Your task to perform on an android device: turn on bluetooth scan Image 0: 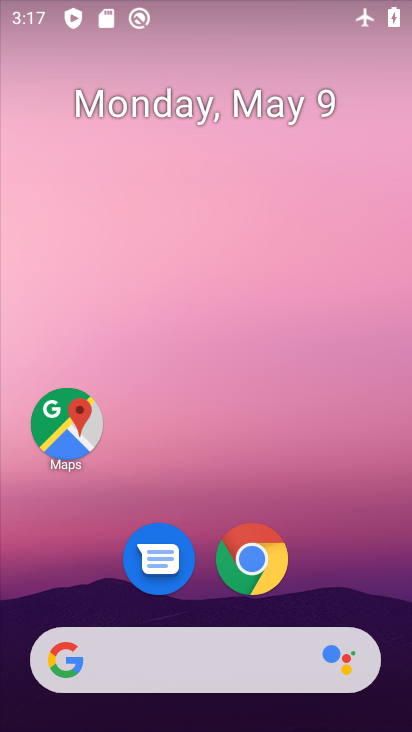
Step 0: drag from (178, 720) to (182, 398)
Your task to perform on an android device: turn on bluetooth scan Image 1: 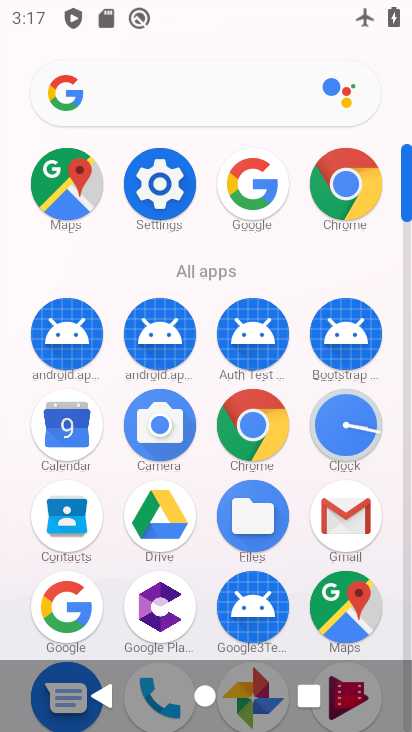
Step 1: click (157, 172)
Your task to perform on an android device: turn on bluetooth scan Image 2: 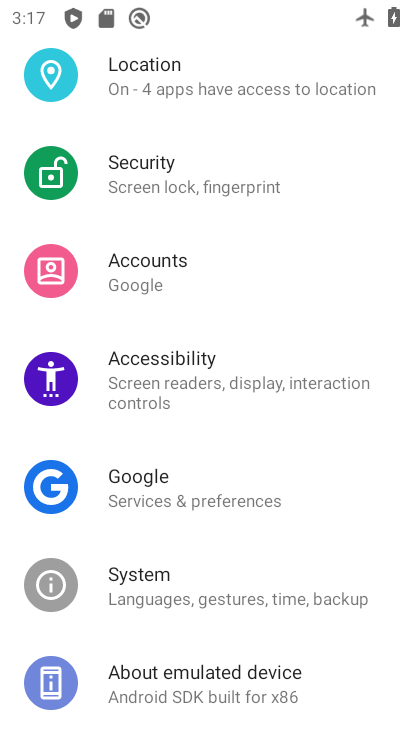
Step 2: click (166, 87)
Your task to perform on an android device: turn on bluetooth scan Image 3: 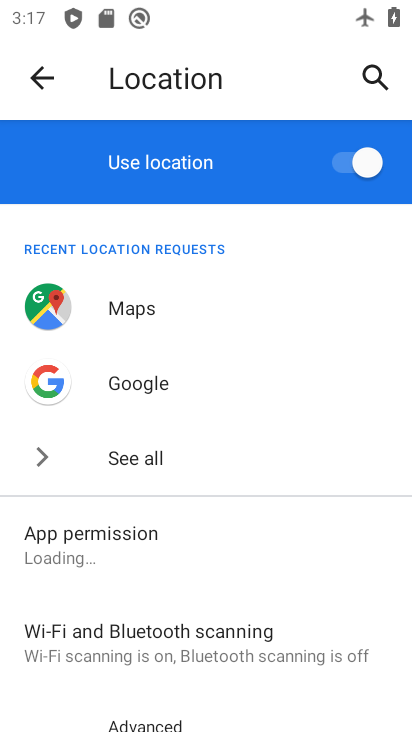
Step 3: click (166, 638)
Your task to perform on an android device: turn on bluetooth scan Image 4: 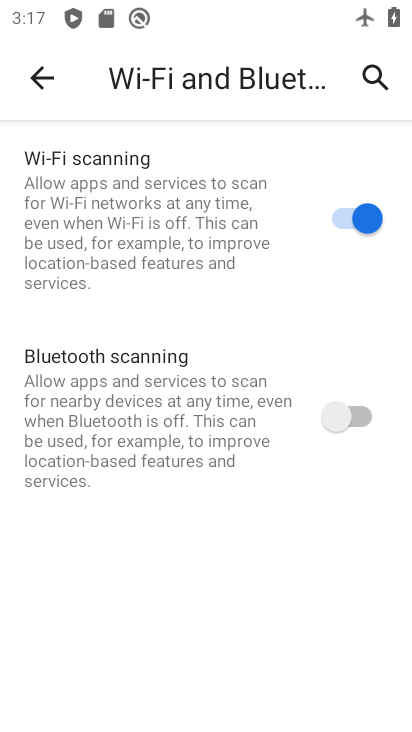
Step 4: click (361, 413)
Your task to perform on an android device: turn on bluetooth scan Image 5: 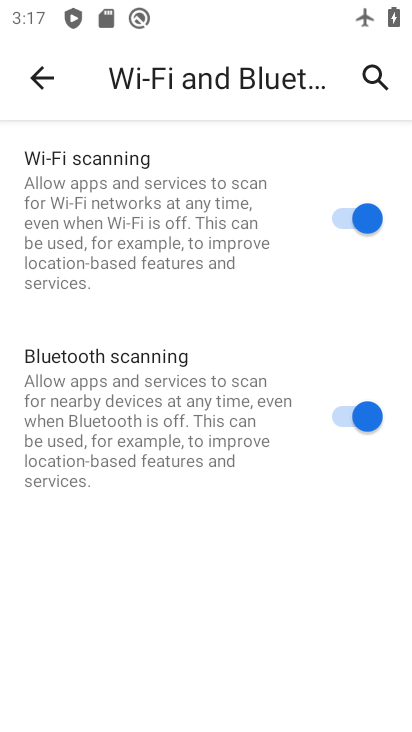
Step 5: task complete